Your task to perform on an android device: turn off smart reply in the gmail app Image 0: 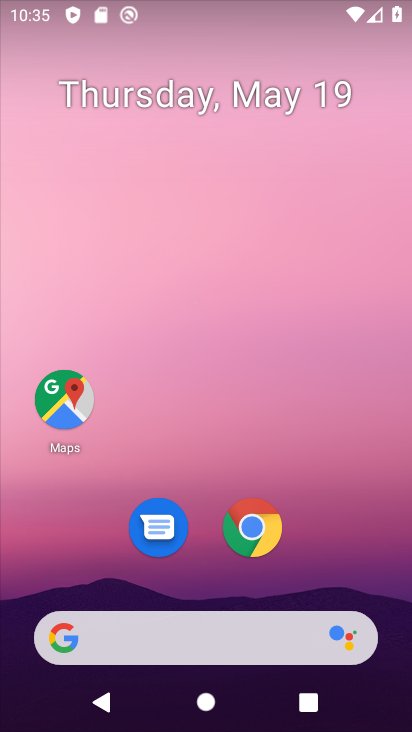
Step 0: drag from (205, 587) to (251, 207)
Your task to perform on an android device: turn off smart reply in the gmail app Image 1: 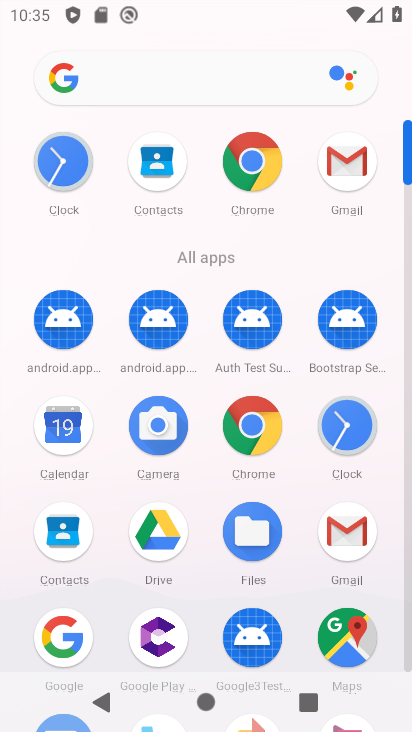
Step 1: click (351, 533)
Your task to perform on an android device: turn off smart reply in the gmail app Image 2: 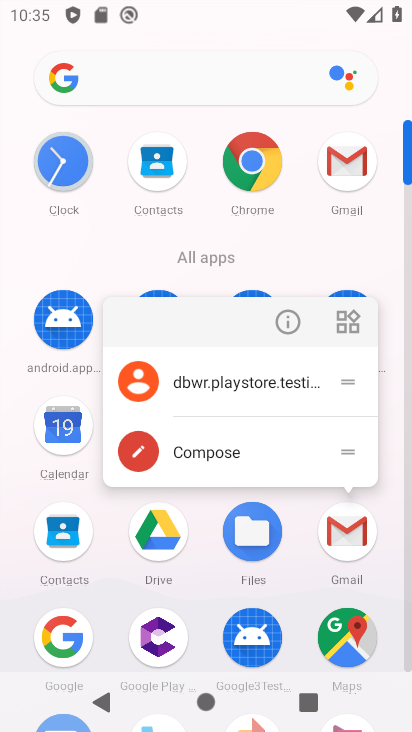
Step 2: click (351, 533)
Your task to perform on an android device: turn off smart reply in the gmail app Image 3: 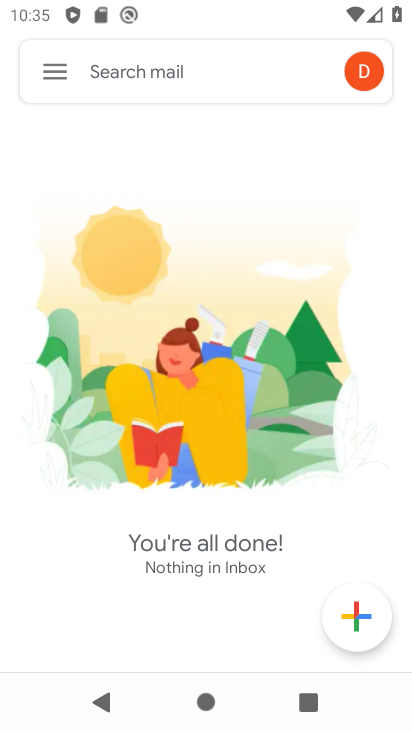
Step 3: click (62, 77)
Your task to perform on an android device: turn off smart reply in the gmail app Image 4: 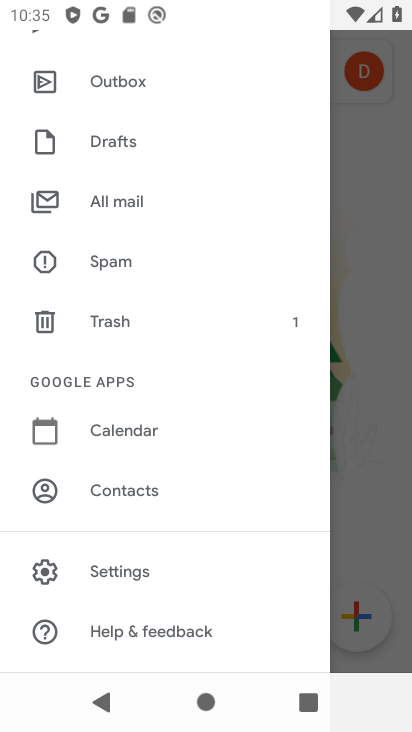
Step 4: click (117, 576)
Your task to perform on an android device: turn off smart reply in the gmail app Image 5: 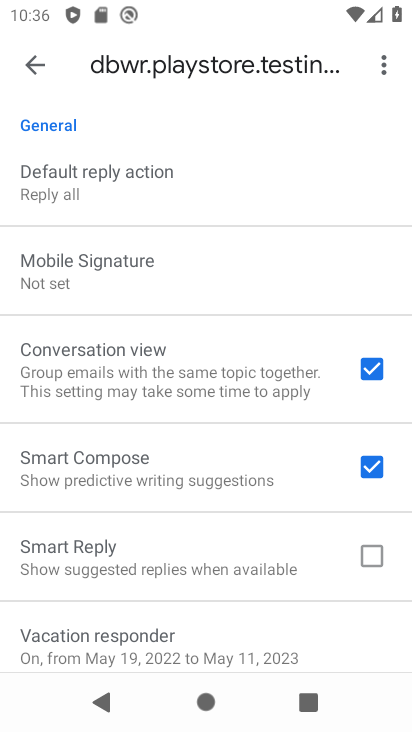
Step 5: task complete